Your task to perform on an android device: Open ESPN.com Image 0: 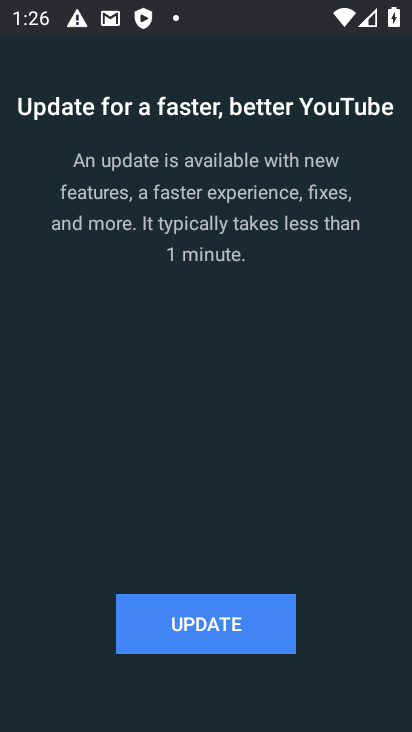
Step 0: press home button
Your task to perform on an android device: Open ESPN.com Image 1: 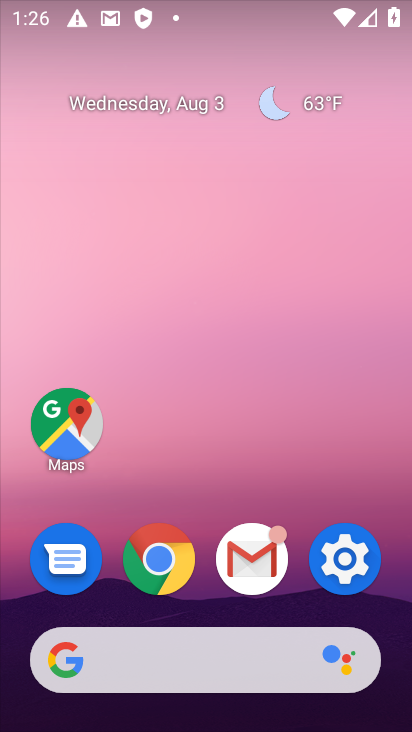
Step 1: click (168, 574)
Your task to perform on an android device: Open ESPN.com Image 2: 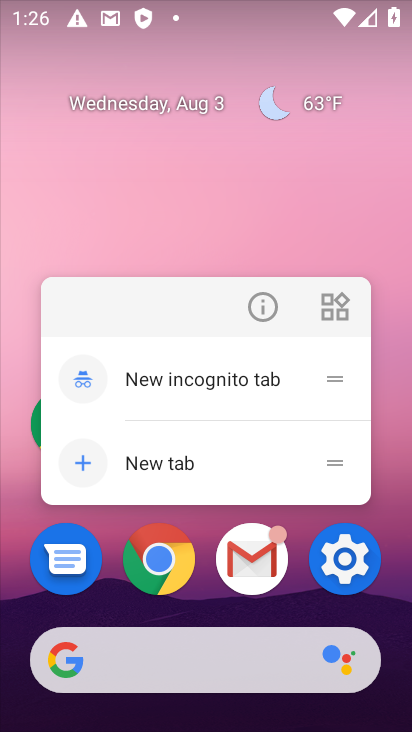
Step 2: click (180, 557)
Your task to perform on an android device: Open ESPN.com Image 3: 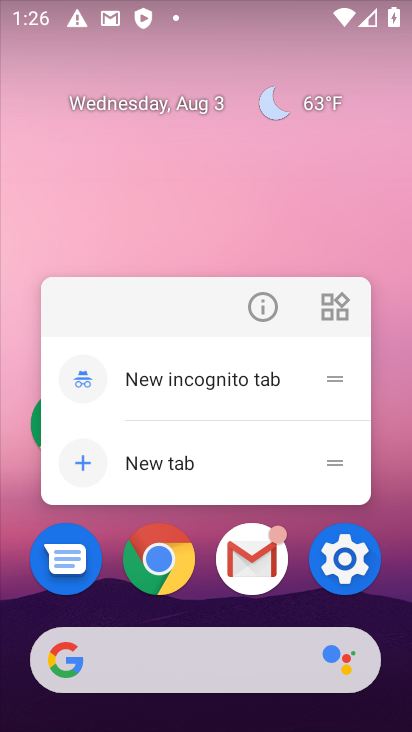
Step 3: click (174, 555)
Your task to perform on an android device: Open ESPN.com Image 4: 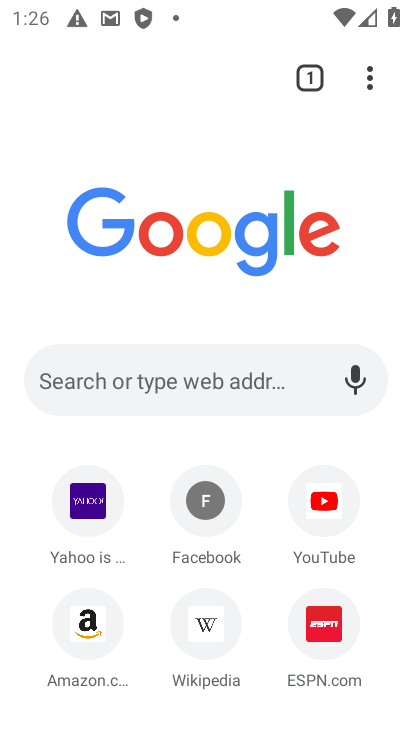
Step 4: click (322, 651)
Your task to perform on an android device: Open ESPN.com Image 5: 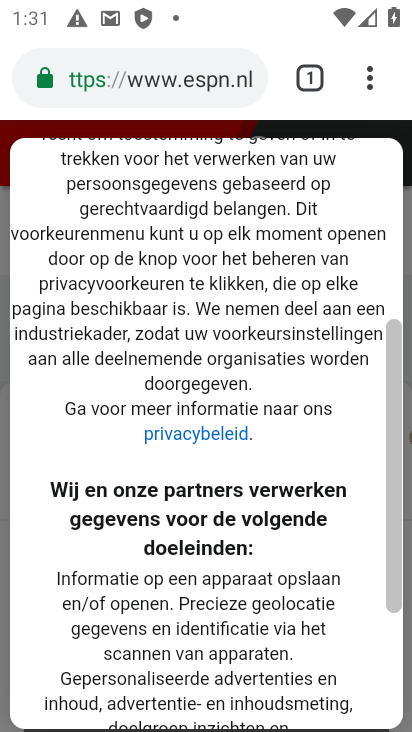
Step 5: task complete